Your task to perform on an android device: Open Google Image 0: 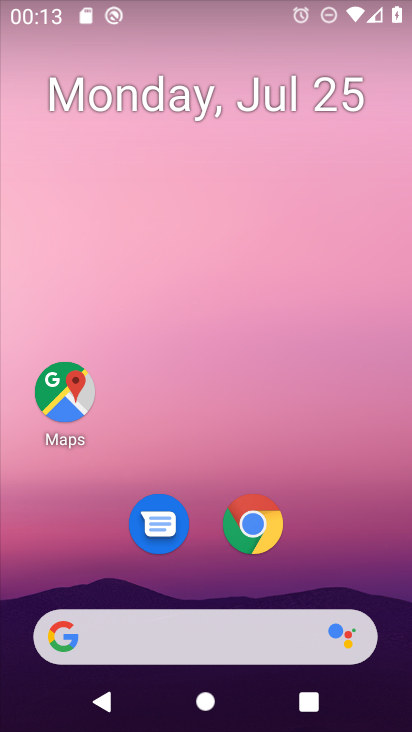
Step 0: drag from (214, 500) to (317, 153)
Your task to perform on an android device: Open Google Image 1: 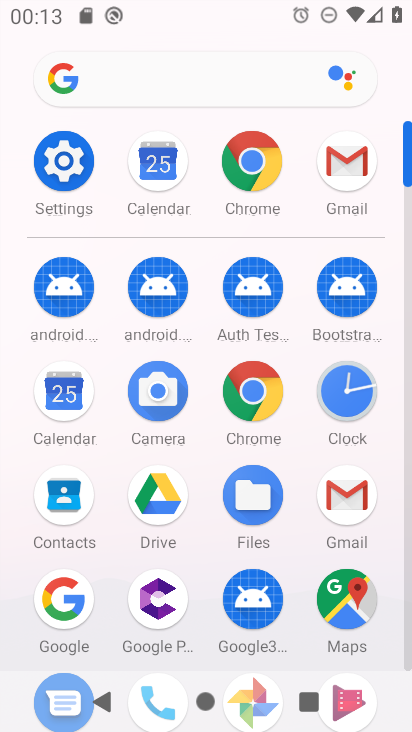
Step 1: click (64, 604)
Your task to perform on an android device: Open Google Image 2: 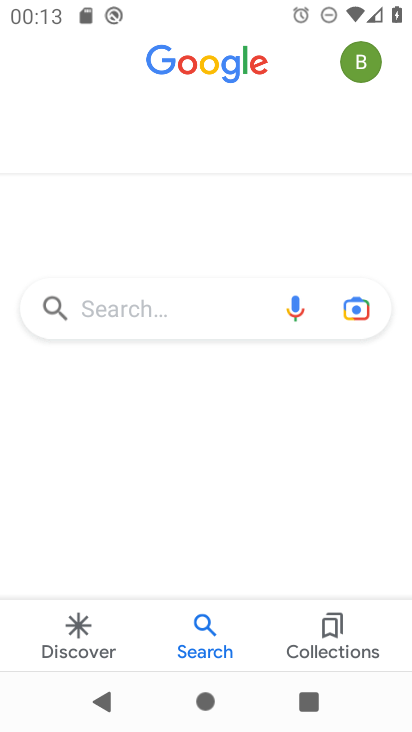
Step 2: task complete